Your task to perform on an android device: turn on sleep mode Image 0: 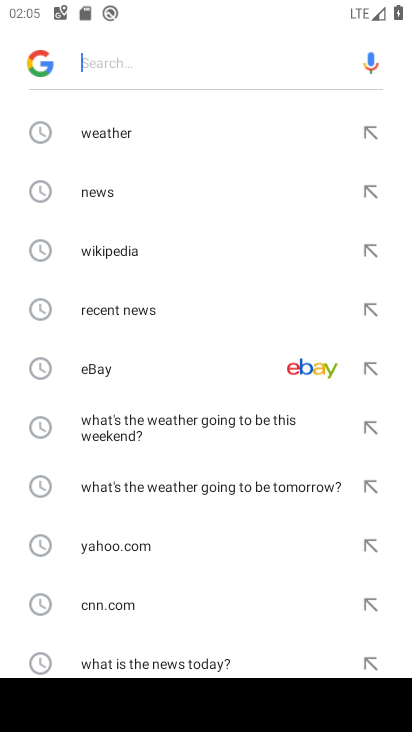
Step 0: press home button
Your task to perform on an android device: turn on sleep mode Image 1: 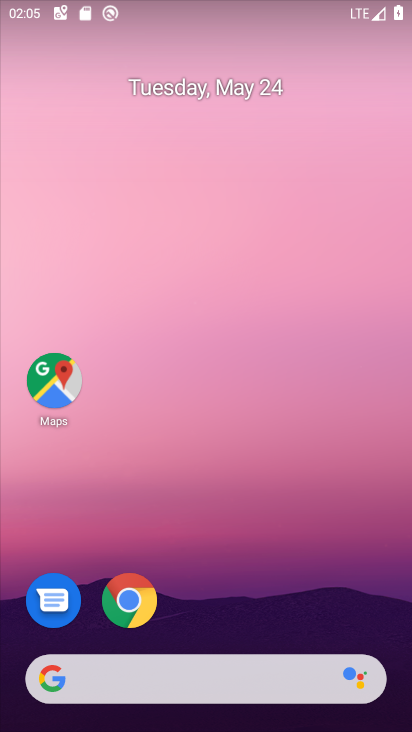
Step 1: drag from (291, 529) to (246, 166)
Your task to perform on an android device: turn on sleep mode Image 2: 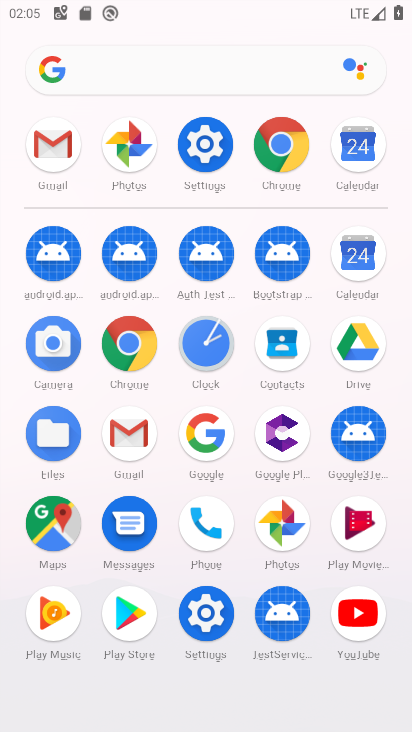
Step 2: click (217, 131)
Your task to perform on an android device: turn on sleep mode Image 3: 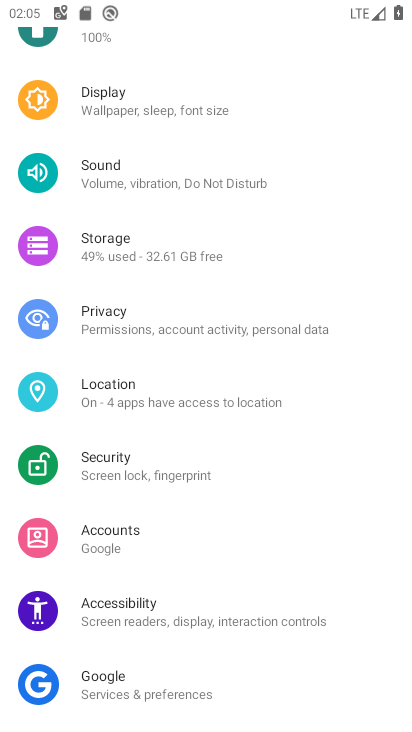
Step 3: drag from (175, 277) to (126, 608)
Your task to perform on an android device: turn on sleep mode Image 4: 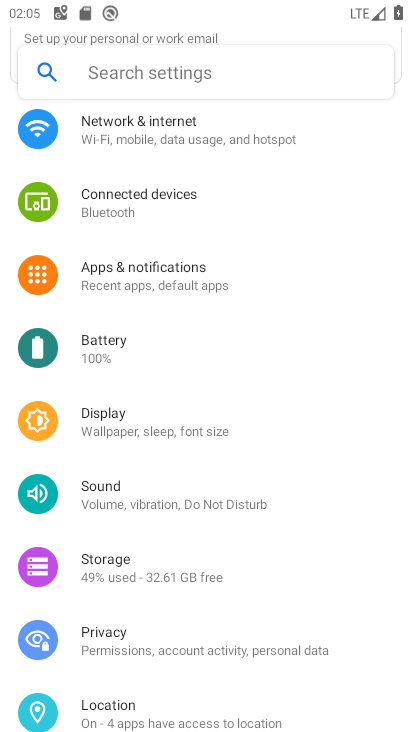
Step 4: click (164, 411)
Your task to perform on an android device: turn on sleep mode Image 5: 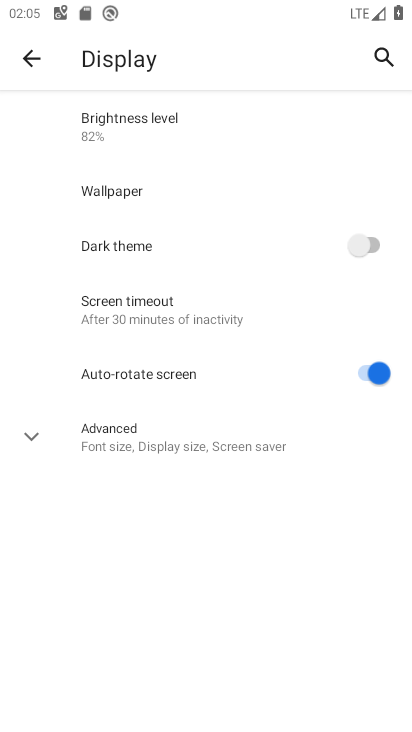
Step 5: click (148, 437)
Your task to perform on an android device: turn on sleep mode Image 6: 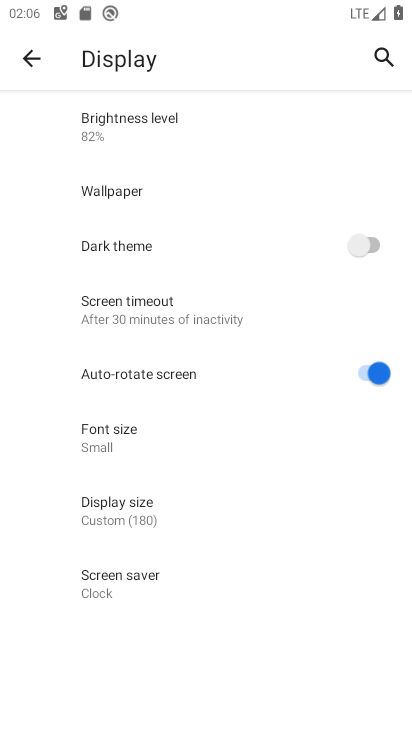
Step 6: task complete